Your task to perform on an android device: turn on airplane mode Image 0: 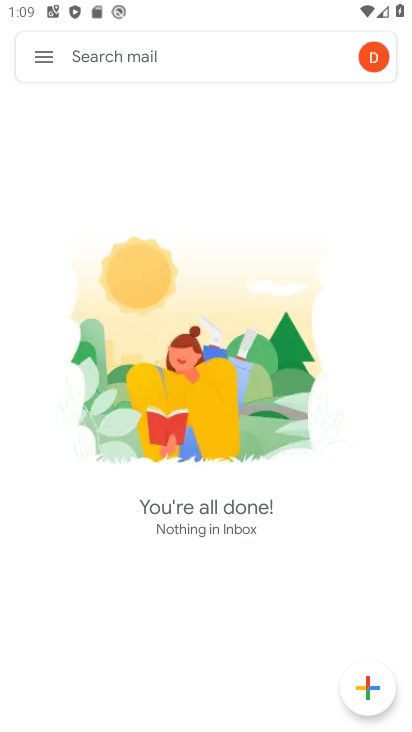
Step 0: press back button
Your task to perform on an android device: turn on airplane mode Image 1: 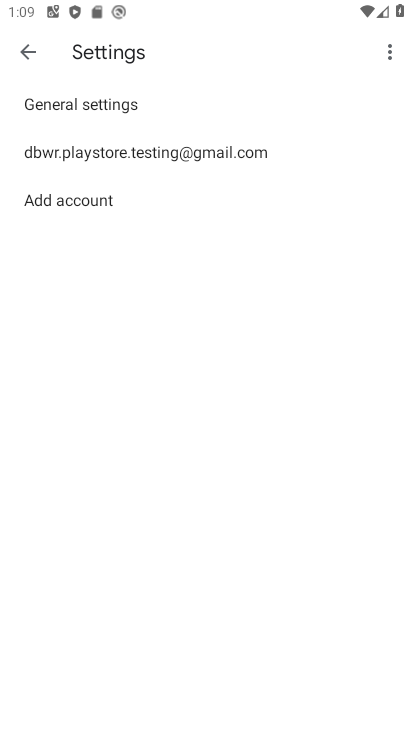
Step 1: press back button
Your task to perform on an android device: turn on airplane mode Image 2: 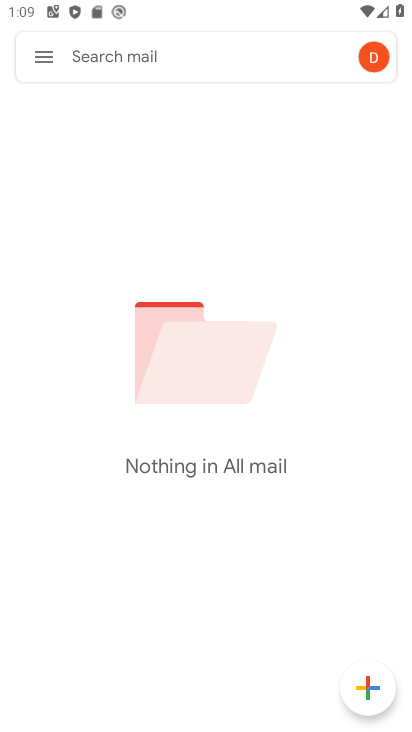
Step 2: press back button
Your task to perform on an android device: turn on airplane mode Image 3: 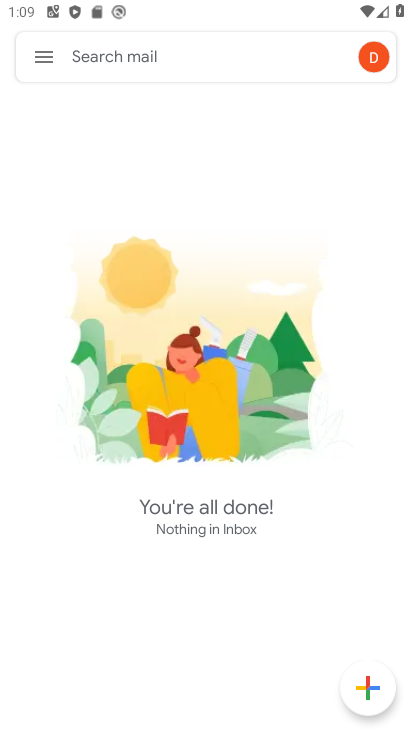
Step 3: drag from (367, 32) to (282, 626)
Your task to perform on an android device: turn on airplane mode Image 4: 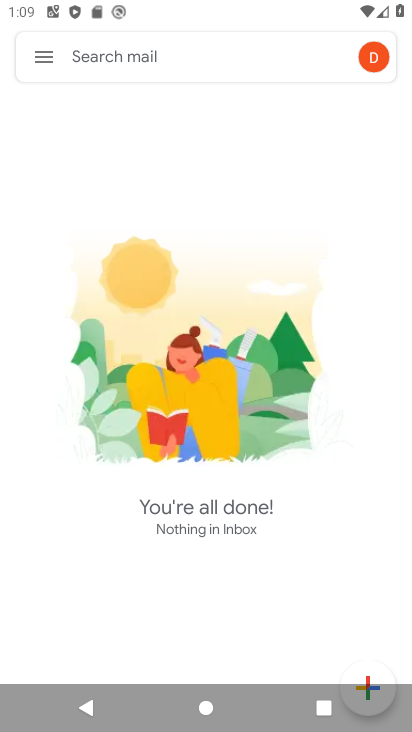
Step 4: drag from (358, 8) to (307, 440)
Your task to perform on an android device: turn on airplane mode Image 5: 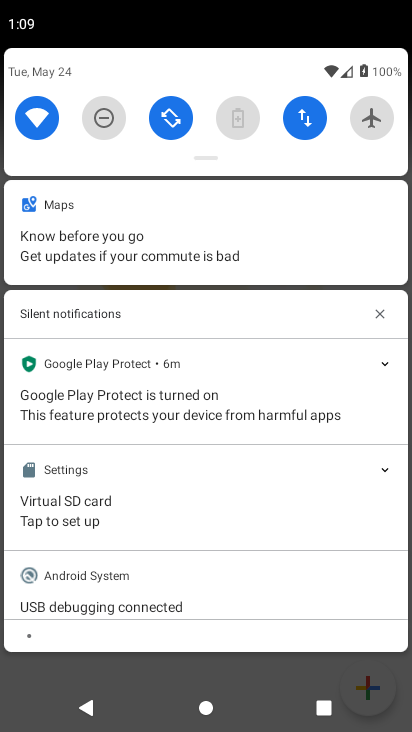
Step 5: click (358, 118)
Your task to perform on an android device: turn on airplane mode Image 6: 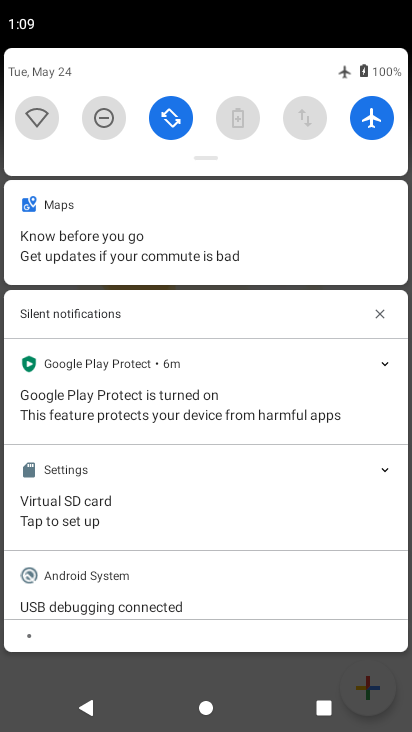
Step 6: task complete